Your task to perform on an android device: turn on bluetooth scan Image 0: 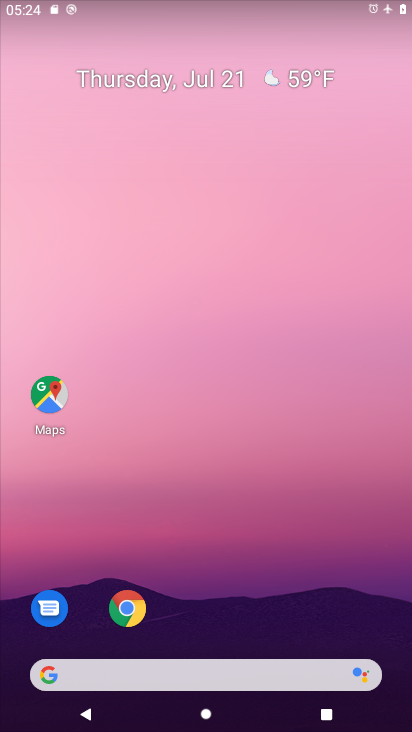
Step 0: task complete